Your task to perform on an android device: change keyboard looks Image 0: 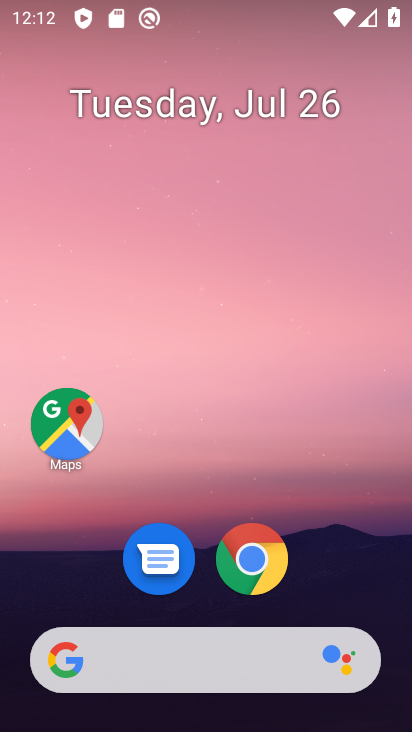
Step 0: drag from (96, 615) to (320, 2)
Your task to perform on an android device: change keyboard looks Image 1: 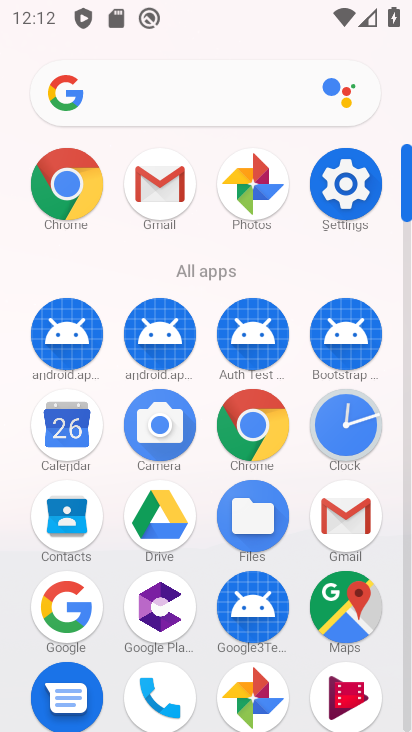
Step 1: click (345, 179)
Your task to perform on an android device: change keyboard looks Image 2: 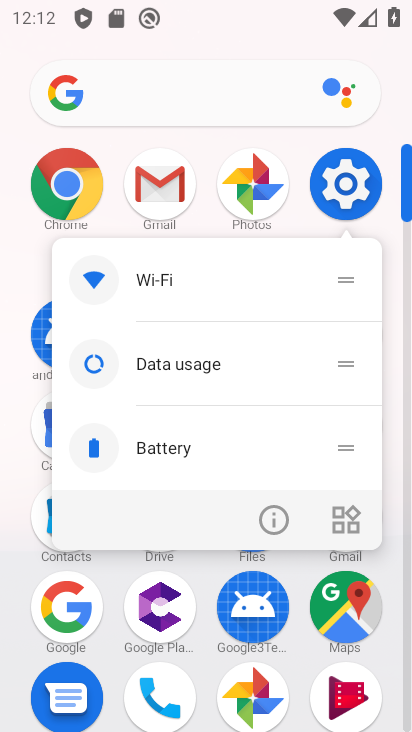
Step 2: click (347, 180)
Your task to perform on an android device: change keyboard looks Image 3: 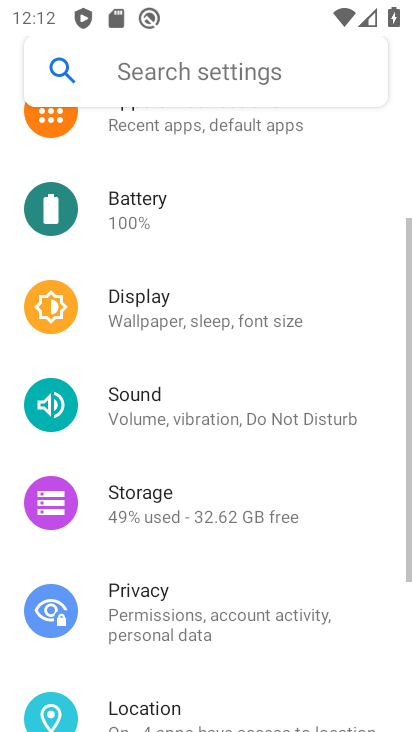
Step 3: drag from (137, 603) to (257, 67)
Your task to perform on an android device: change keyboard looks Image 4: 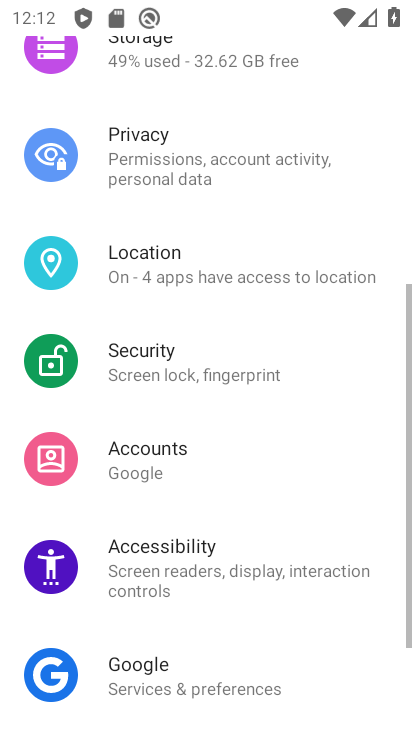
Step 4: drag from (176, 446) to (252, 2)
Your task to perform on an android device: change keyboard looks Image 5: 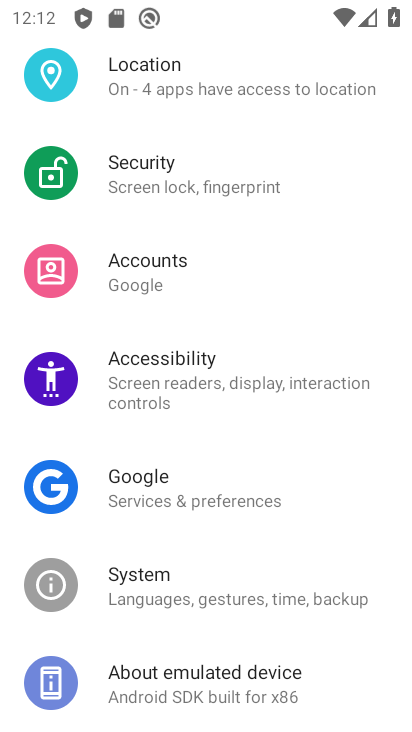
Step 5: drag from (205, 694) to (311, 39)
Your task to perform on an android device: change keyboard looks Image 6: 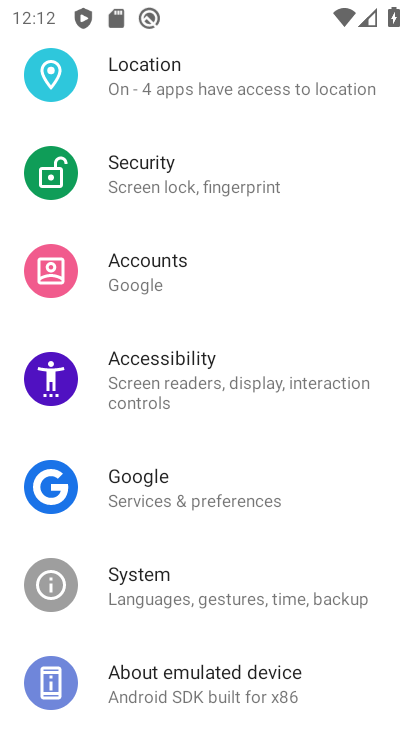
Step 6: click (176, 690)
Your task to perform on an android device: change keyboard looks Image 7: 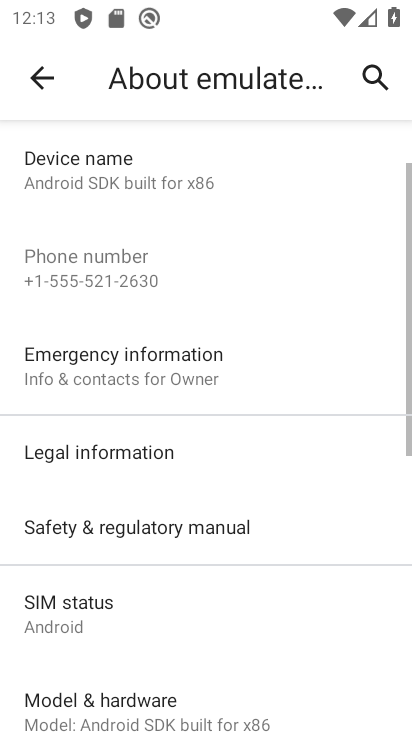
Step 7: drag from (133, 664) to (192, 369)
Your task to perform on an android device: change keyboard looks Image 8: 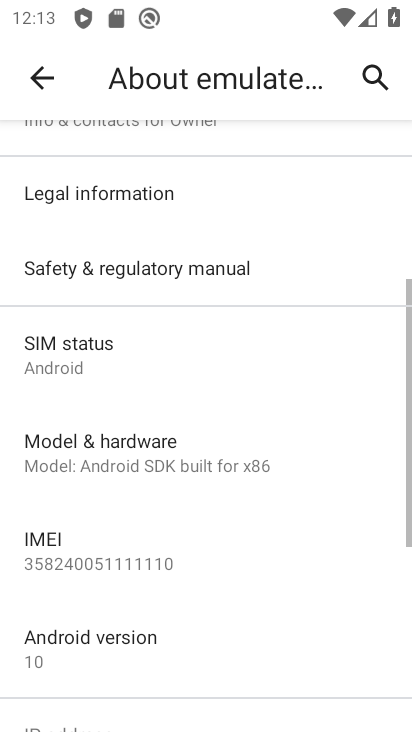
Step 8: click (42, 73)
Your task to perform on an android device: change keyboard looks Image 9: 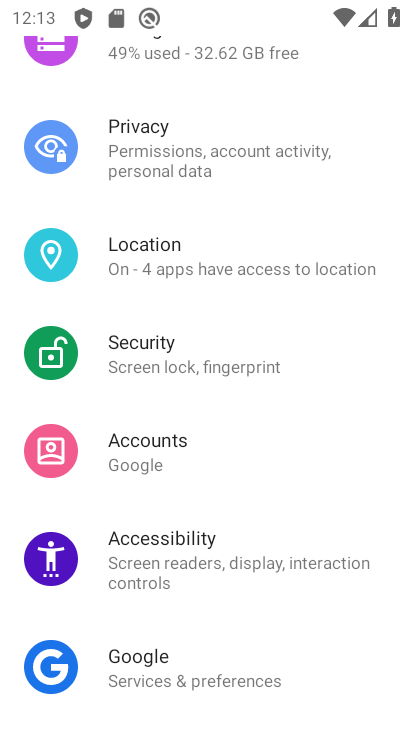
Step 9: drag from (149, 668) to (202, 229)
Your task to perform on an android device: change keyboard looks Image 10: 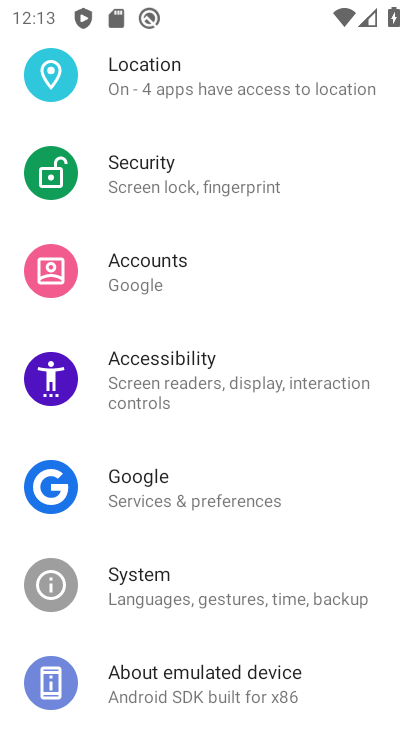
Step 10: click (148, 563)
Your task to perform on an android device: change keyboard looks Image 11: 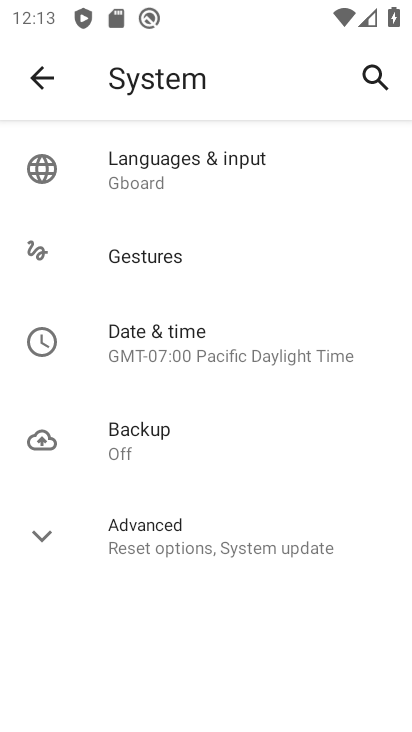
Step 11: click (158, 161)
Your task to perform on an android device: change keyboard looks Image 12: 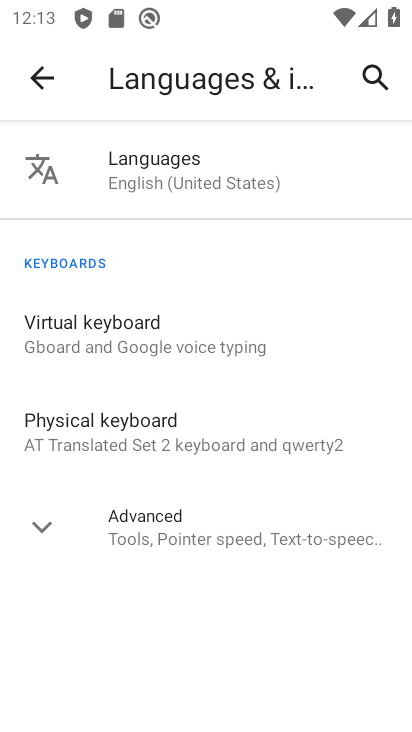
Step 12: click (136, 327)
Your task to perform on an android device: change keyboard looks Image 13: 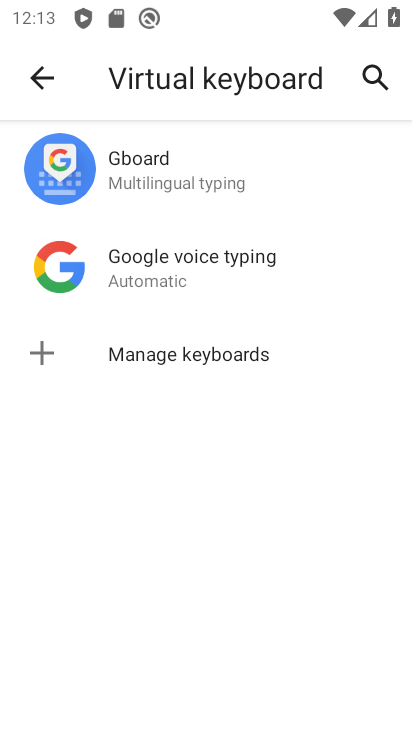
Step 13: click (180, 163)
Your task to perform on an android device: change keyboard looks Image 14: 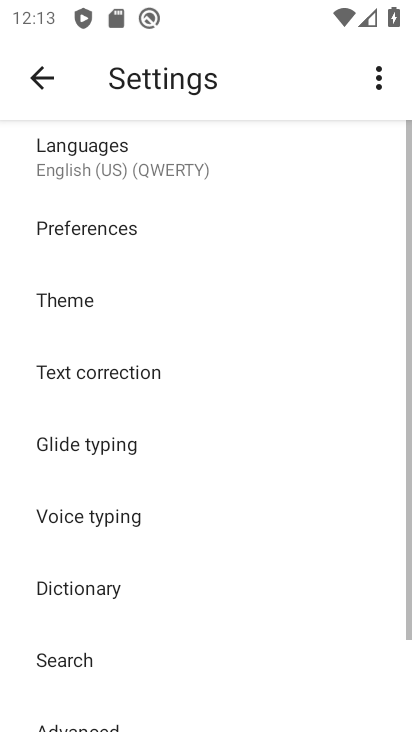
Step 14: click (83, 293)
Your task to perform on an android device: change keyboard looks Image 15: 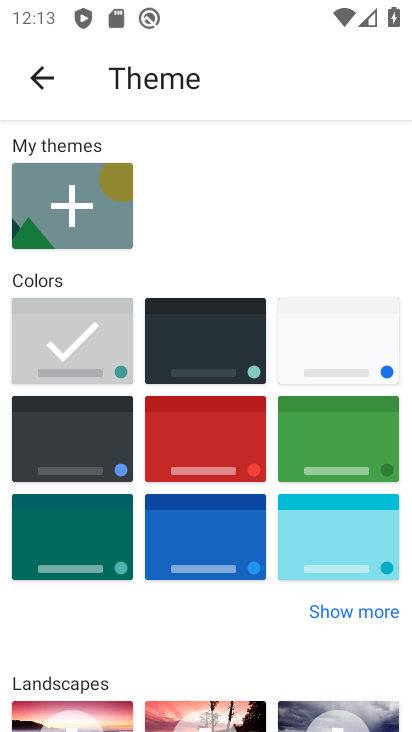
Step 15: click (339, 431)
Your task to perform on an android device: change keyboard looks Image 16: 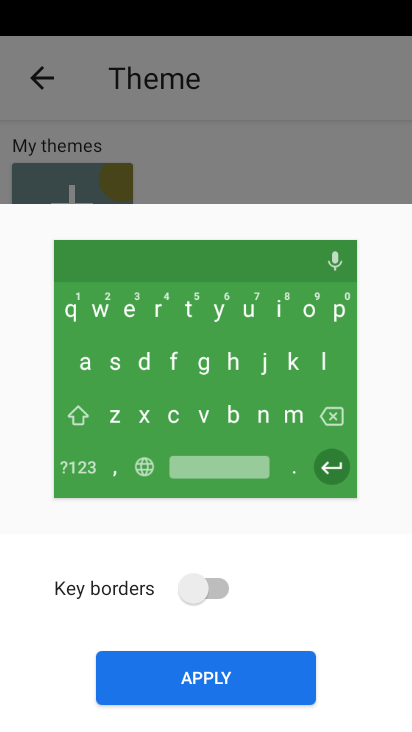
Step 16: click (176, 677)
Your task to perform on an android device: change keyboard looks Image 17: 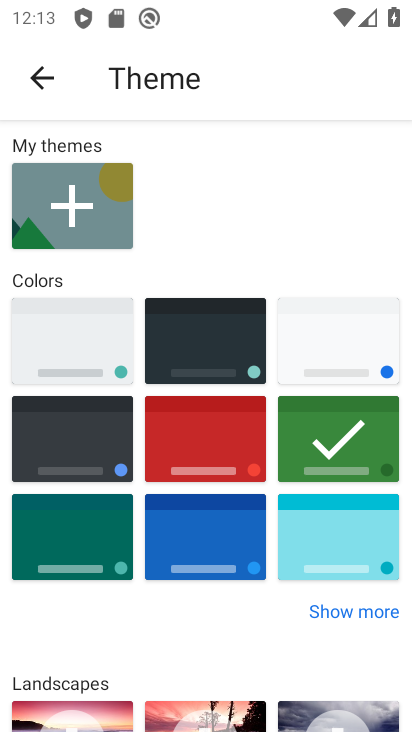
Step 17: task complete